Your task to perform on an android device: View the shopping cart on newegg.com. Image 0: 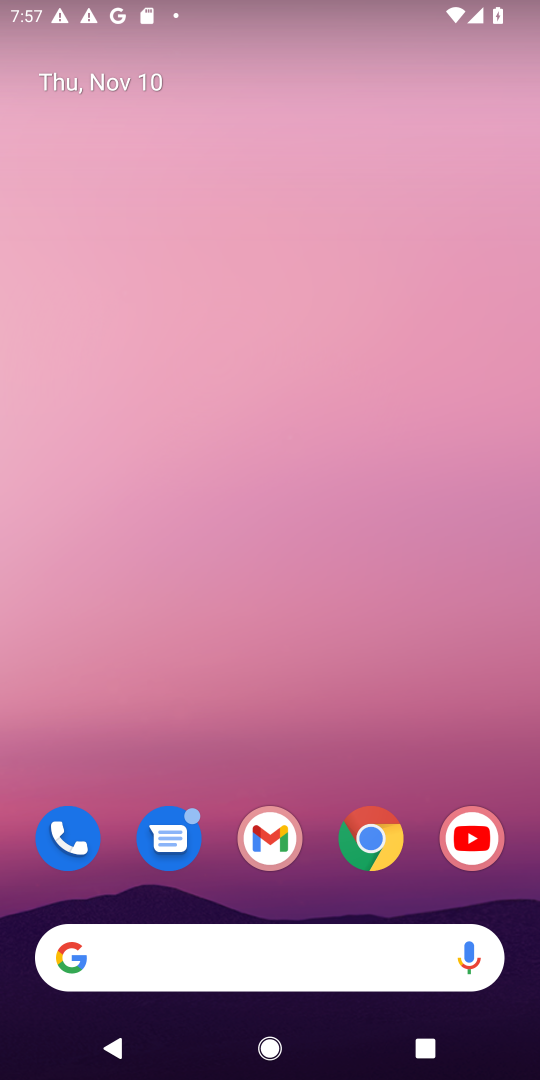
Step 0: drag from (328, 833) to (415, 0)
Your task to perform on an android device: View the shopping cart on newegg.com. Image 1: 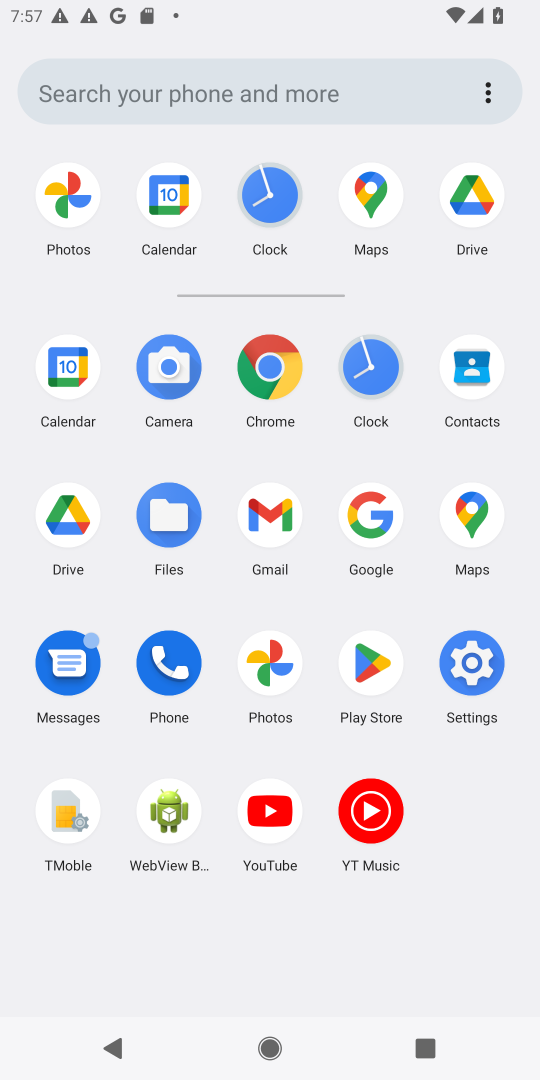
Step 1: click (267, 374)
Your task to perform on an android device: View the shopping cart on newegg.com. Image 2: 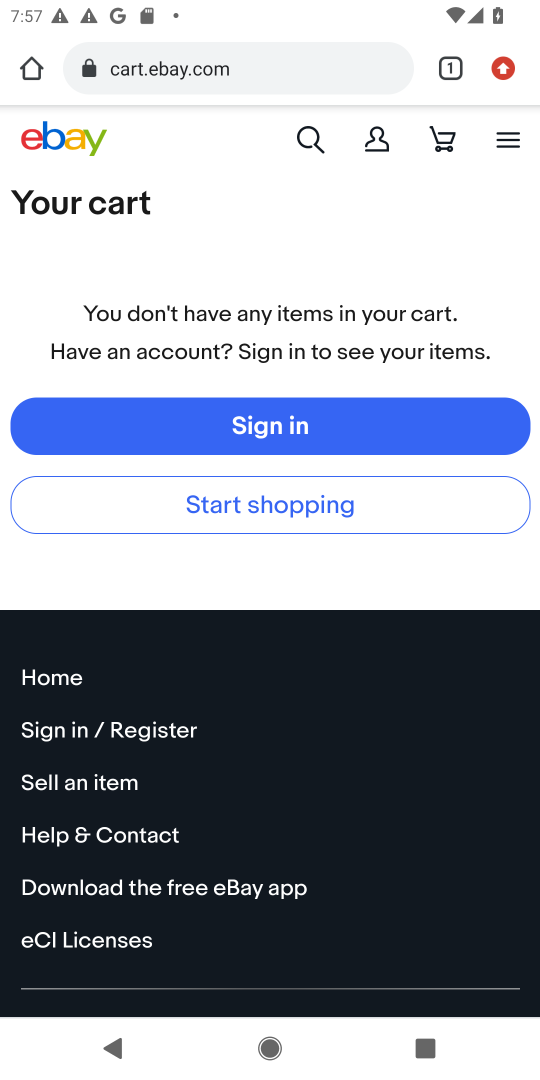
Step 2: click (259, 67)
Your task to perform on an android device: View the shopping cart on newegg.com. Image 3: 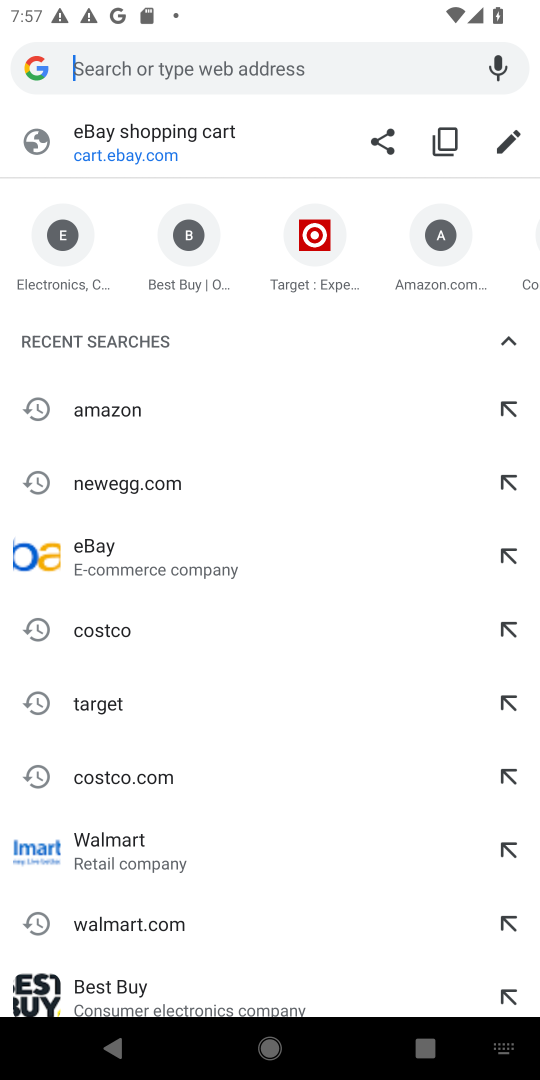
Step 3: type "newegg.com"
Your task to perform on an android device: View the shopping cart on newegg.com. Image 4: 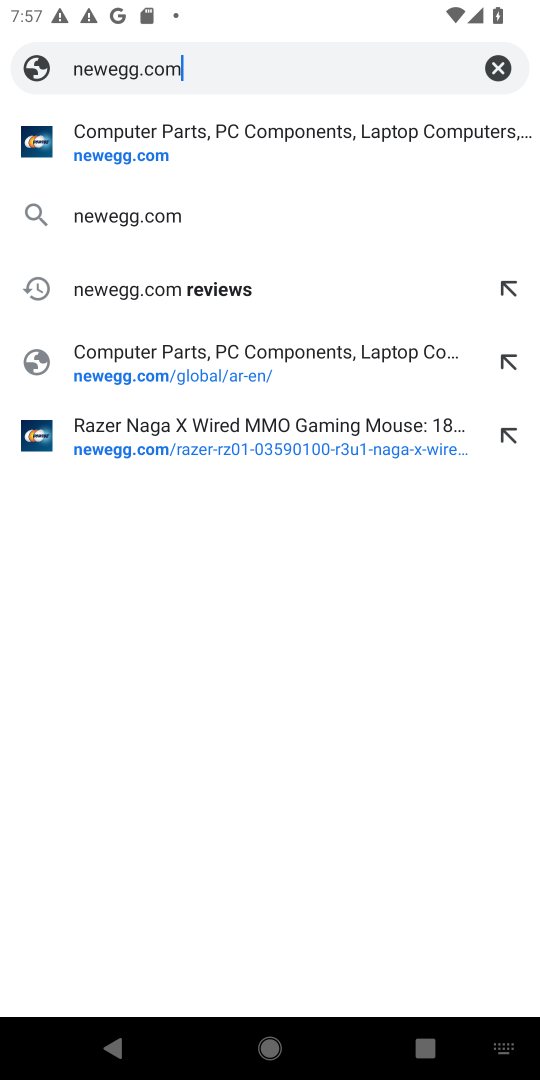
Step 4: press enter
Your task to perform on an android device: View the shopping cart on newegg.com. Image 5: 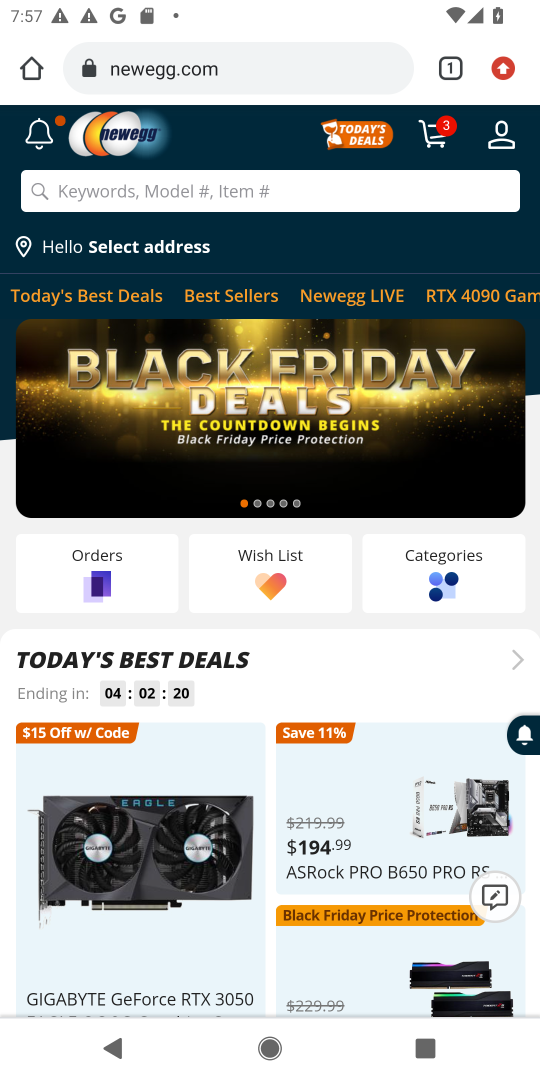
Step 5: click (449, 136)
Your task to perform on an android device: View the shopping cart on newegg.com. Image 6: 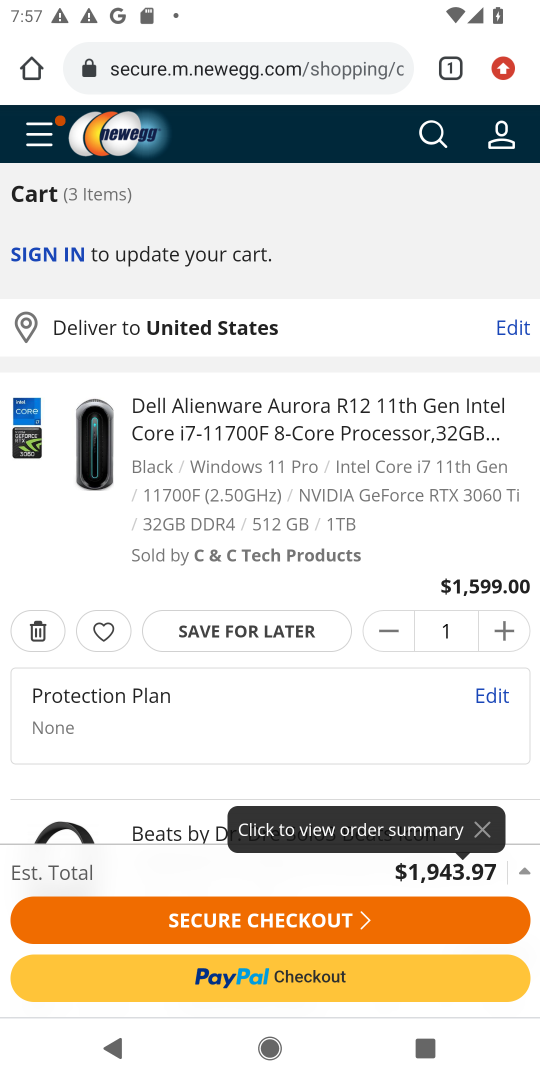
Step 6: task complete